Your task to perform on an android device: read, delete, or share a saved page in the chrome app Image 0: 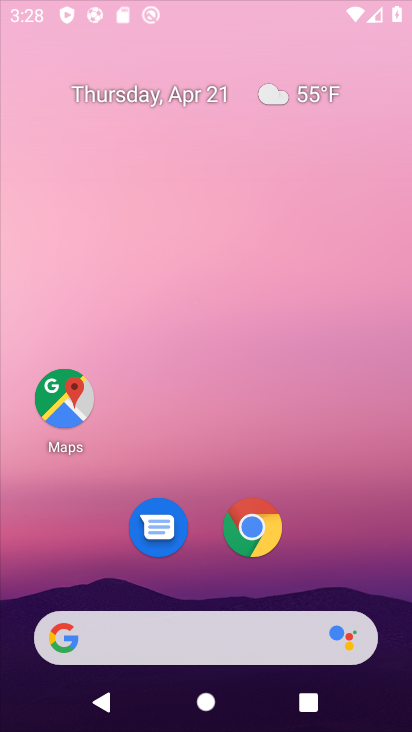
Step 0: drag from (335, 565) to (397, 259)
Your task to perform on an android device: read, delete, or share a saved page in the chrome app Image 1: 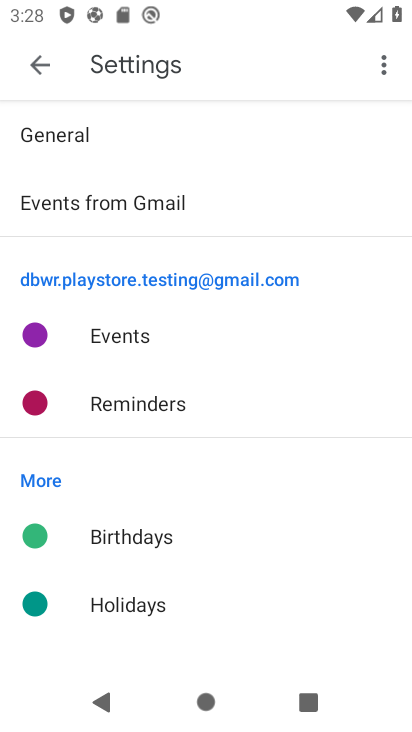
Step 1: press home button
Your task to perform on an android device: read, delete, or share a saved page in the chrome app Image 2: 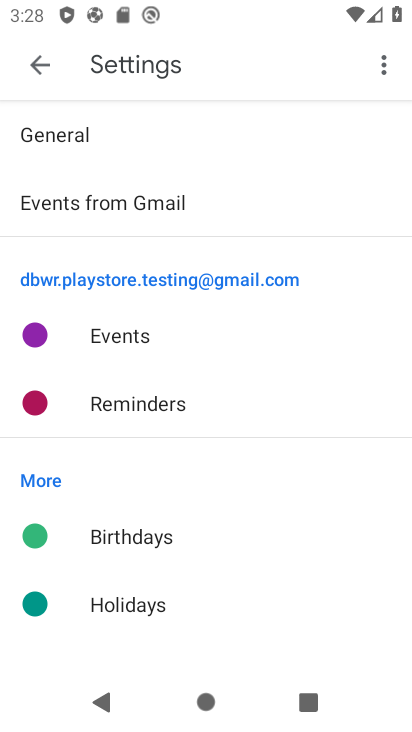
Step 2: drag from (397, 259) to (411, 541)
Your task to perform on an android device: read, delete, or share a saved page in the chrome app Image 3: 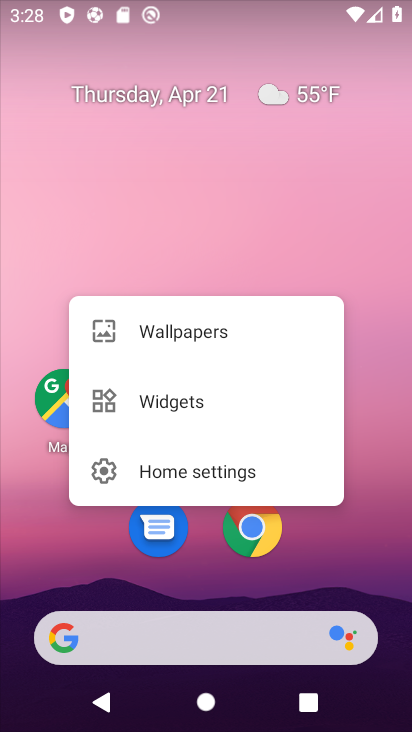
Step 3: click (252, 541)
Your task to perform on an android device: read, delete, or share a saved page in the chrome app Image 4: 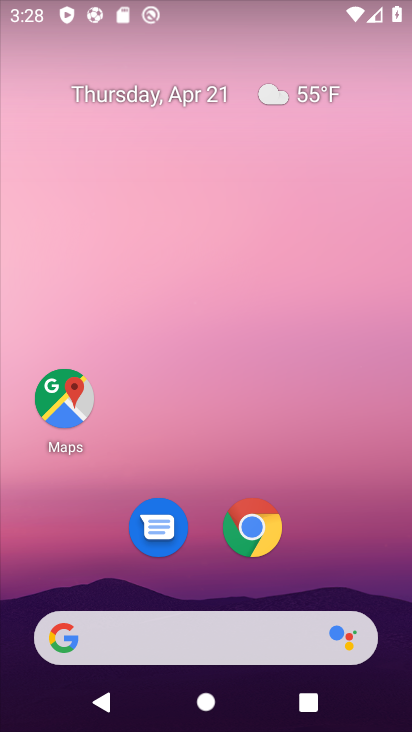
Step 4: click (252, 541)
Your task to perform on an android device: read, delete, or share a saved page in the chrome app Image 5: 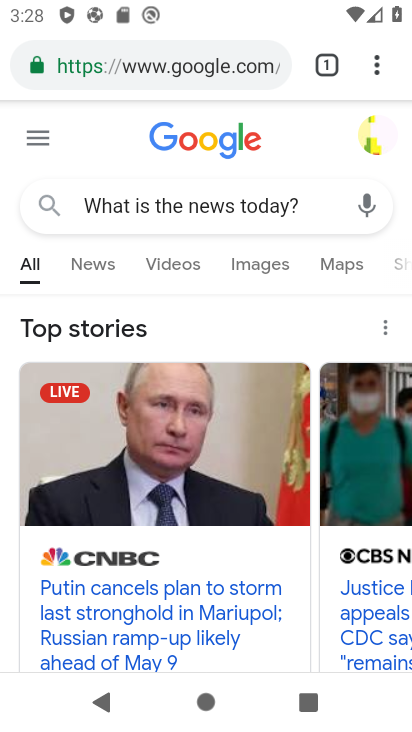
Step 5: click (375, 89)
Your task to perform on an android device: read, delete, or share a saved page in the chrome app Image 6: 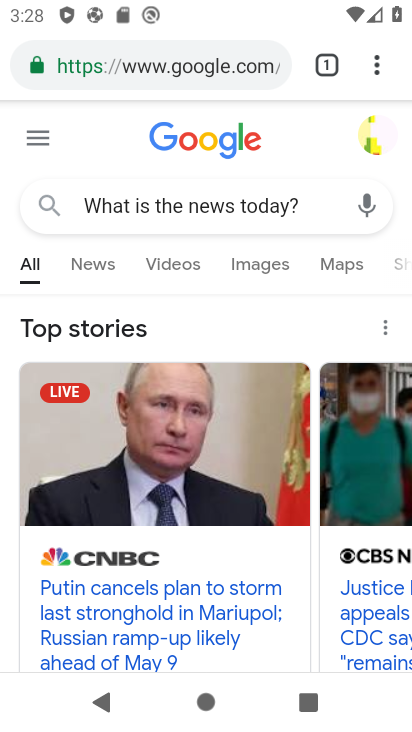
Step 6: click (379, 60)
Your task to perform on an android device: read, delete, or share a saved page in the chrome app Image 7: 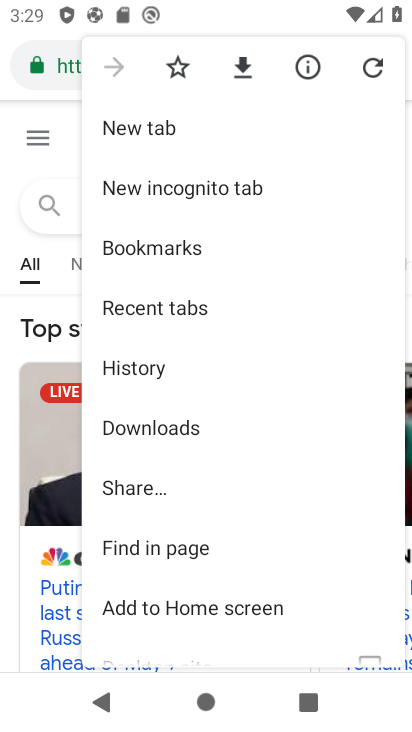
Step 7: click (235, 428)
Your task to perform on an android device: read, delete, or share a saved page in the chrome app Image 8: 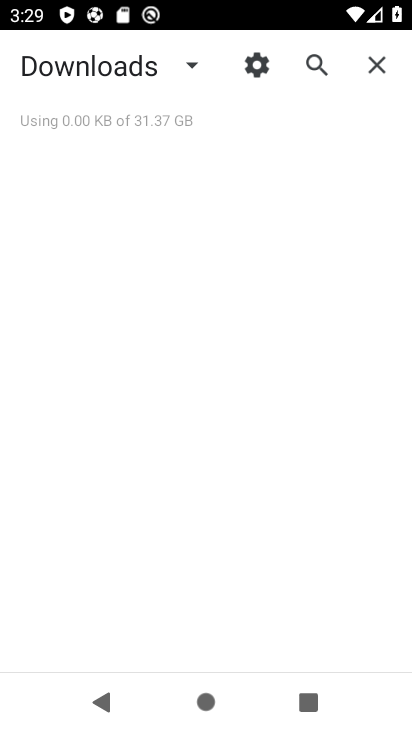
Step 8: click (196, 70)
Your task to perform on an android device: read, delete, or share a saved page in the chrome app Image 9: 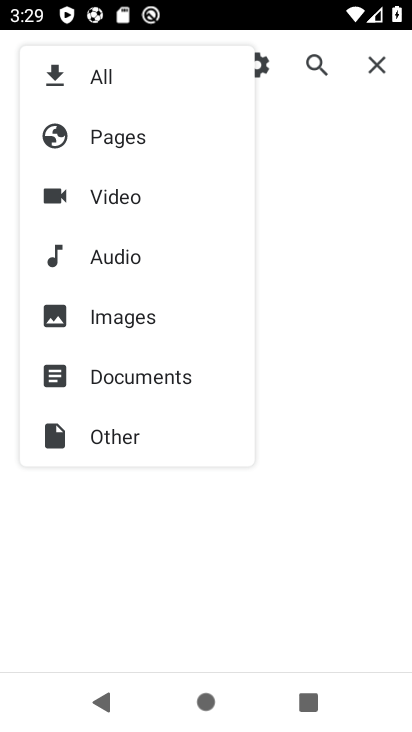
Step 9: click (178, 148)
Your task to perform on an android device: read, delete, or share a saved page in the chrome app Image 10: 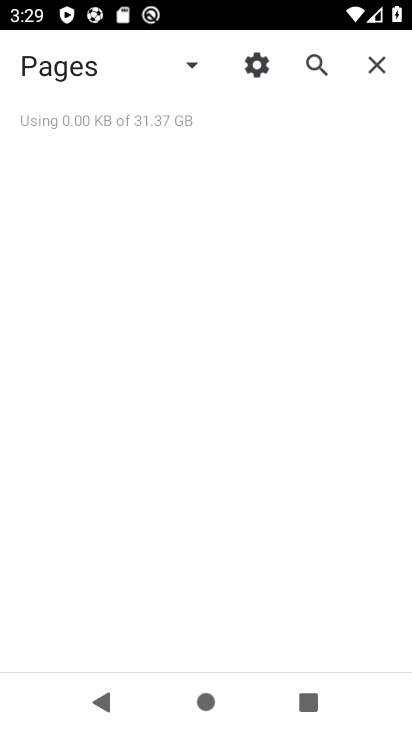
Step 10: task complete